Your task to perform on an android device: delete browsing data in the chrome app Image 0: 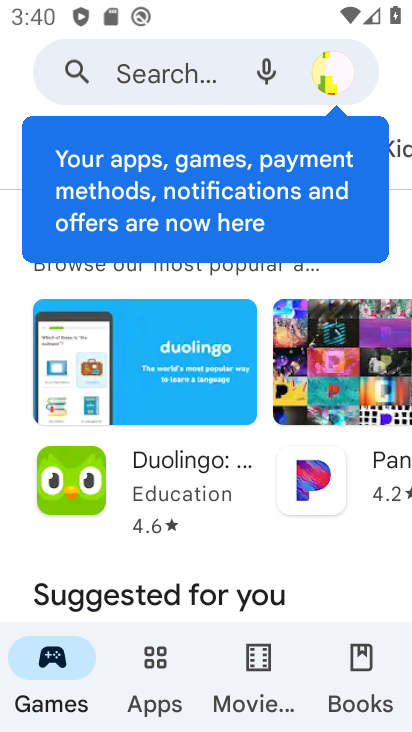
Step 0: press home button
Your task to perform on an android device: delete browsing data in the chrome app Image 1: 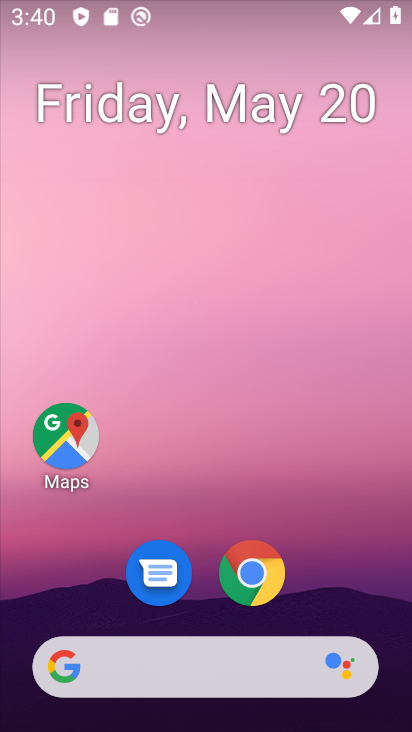
Step 1: click (257, 593)
Your task to perform on an android device: delete browsing data in the chrome app Image 2: 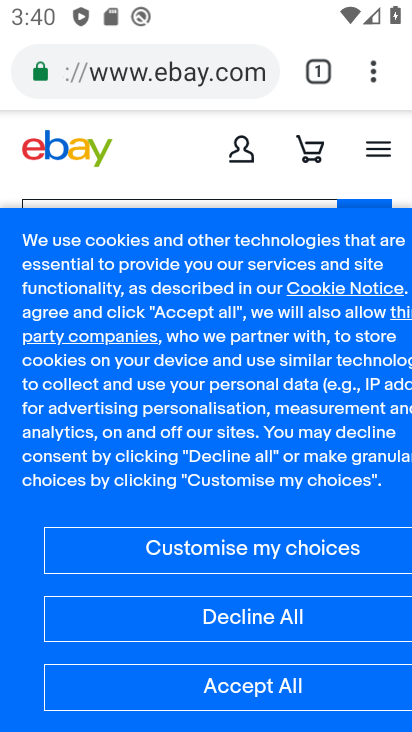
Step 2: click (373, 77)
Your task to perform on an android device: delete browsing data in the chrome app Image 3: 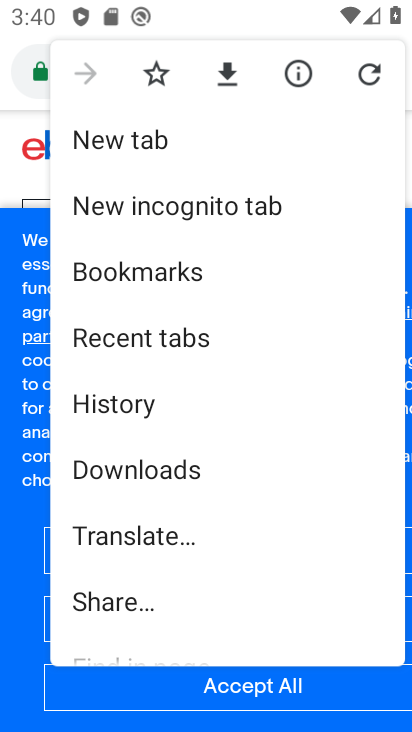
Step 3: click (202, 392)
Your task to perform on an android device: delete browsing data in the chrome app Image 4: 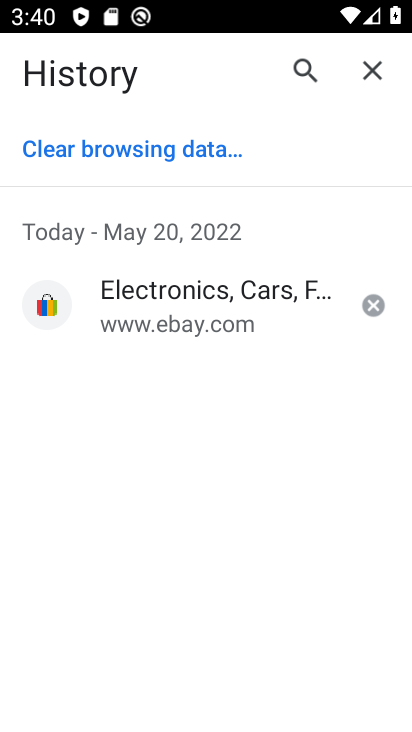
Step 4: click (190, 147)
Your task to perform on an android device: delete browsing data in the chrome app Image 5: 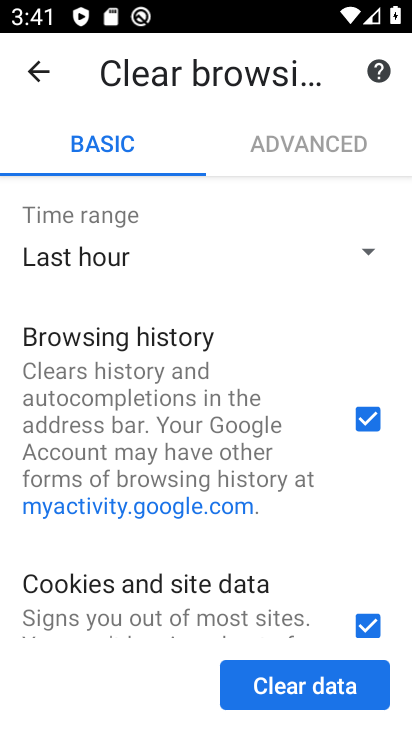
Step 5: click (359, 624)
Your task to perform on an android device: delete browsing data in the chrome app Image 6: 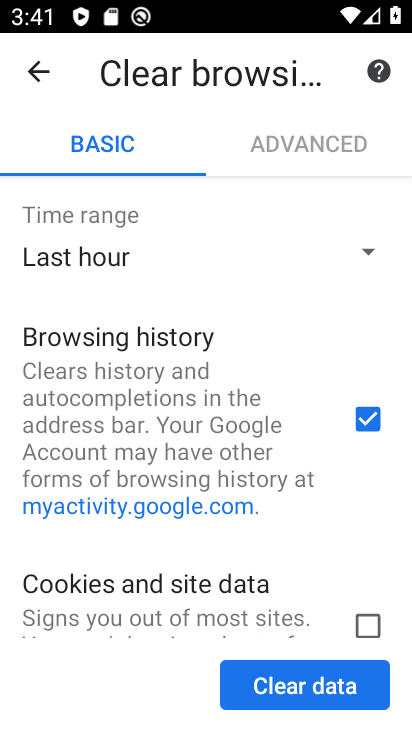
Step 6: drag from (320, 588) to (283, 159)
Your task to perform on an android device: delete browsing data in the chrome app Image 7: 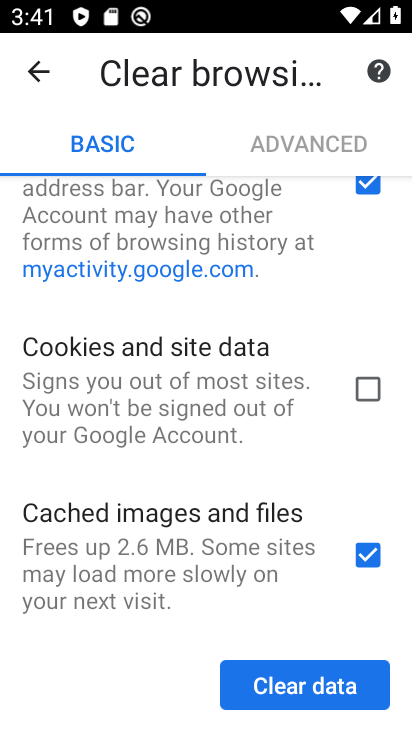
Step 7: click (378, 560)
Your task to perform on an android device: delete browsing data in the chrome app Image 8: 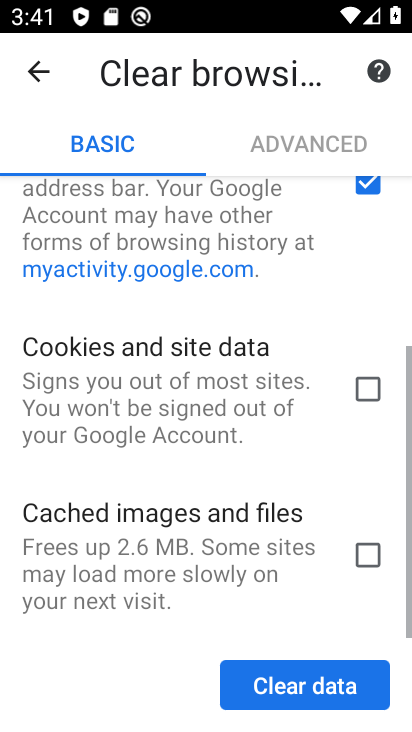
Step 8: click (335, 698)
Your task to perform on an android device: delete browsing data in the chrome app Image 9: 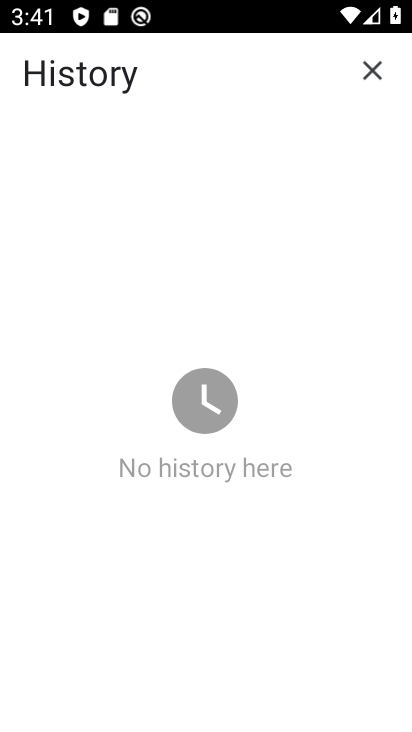
Step 9: task complete